Your task to perform on an android device: delete browsing data in the chrome app Image 0: 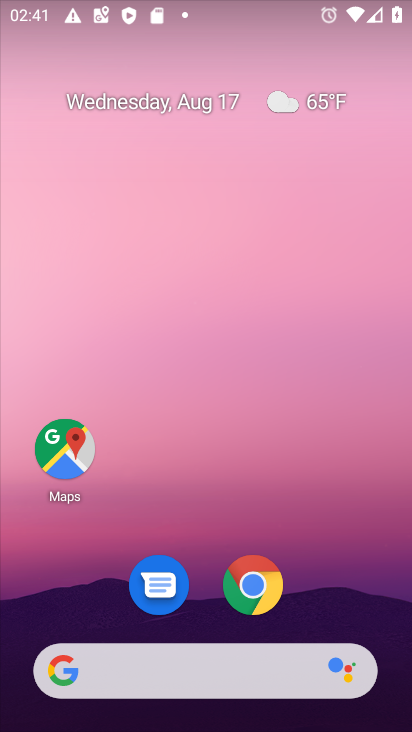
Step 0: drag from (334, 584) to (322, 0)
Your task to perform on an android device: delete browsing data in the chrome app Image 1: 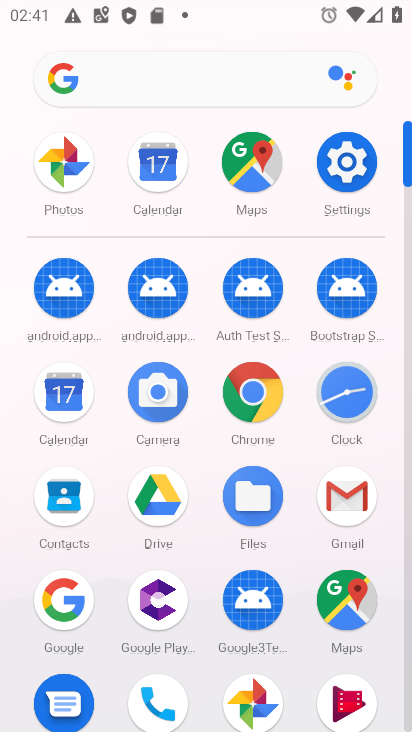
Step 1: click (257, 387)
Your task to perform on an android device: delete browsing data in the chrome app Image 2: 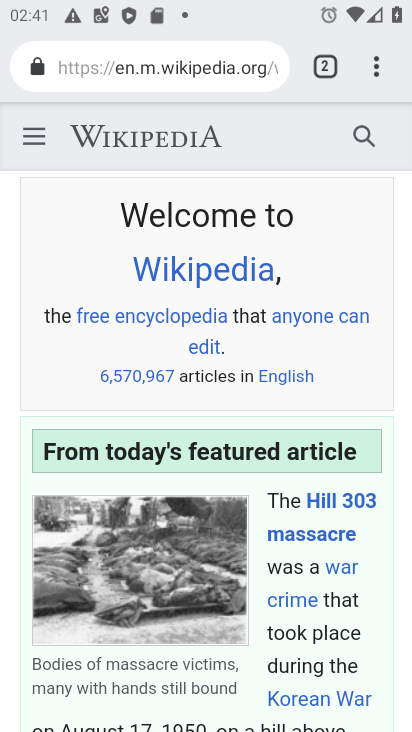
Step 2: click (374, 60)
Your task to perform on an android device: delete browsing data in the chrome app Image 3: 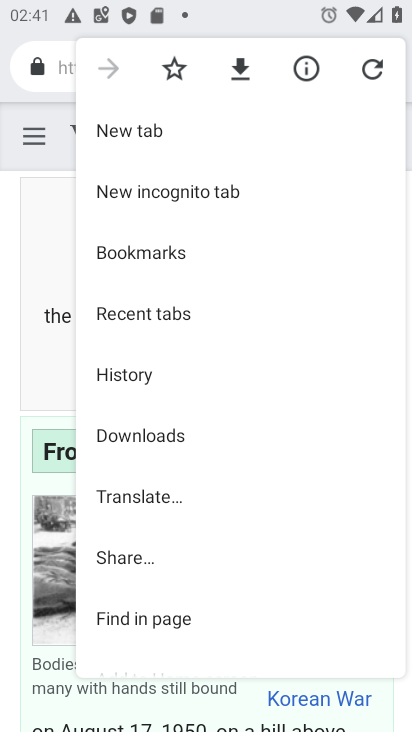
Step 3: click (150, 376)
Your task to perform on an android device: delete browsing data in the chrome app Image 4: 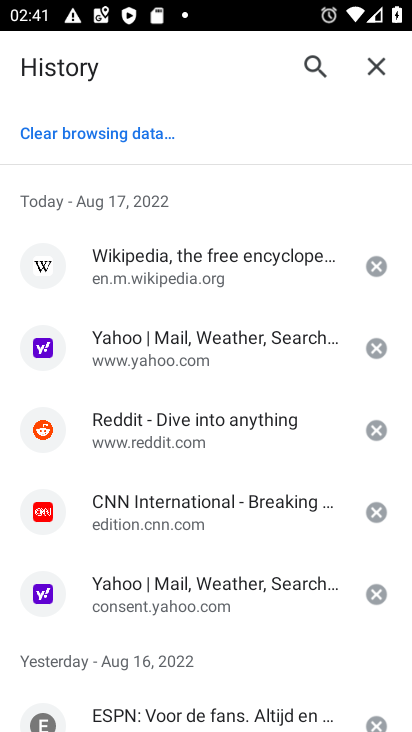
Step 4: click (121, 129)
Your task to perform on an android device: delete browsing data in the chrome app Image 5: 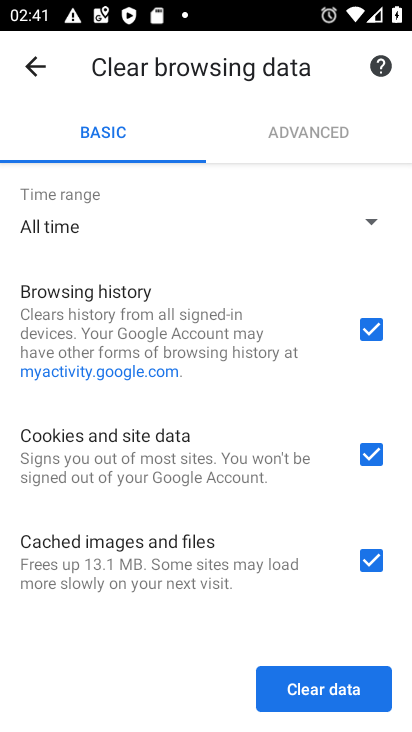
Step 5: click (339, 693)
Your task to perform on an android device: delete browsing data in the chrome app Image 6: 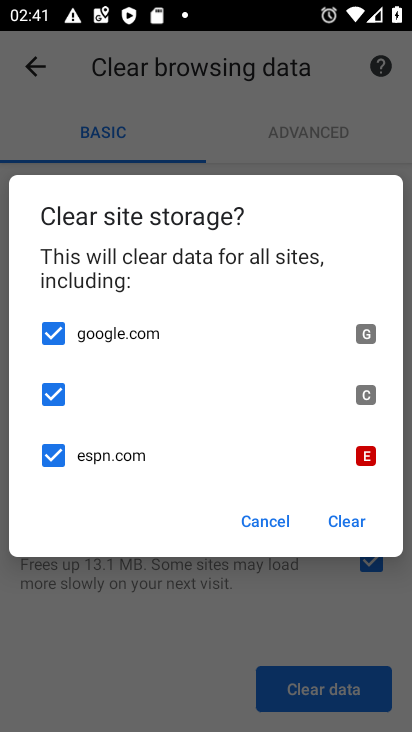
Step 6: click (354, 521)
Your task to perform on an android device: delete browsing data in the chrome app Image 7: 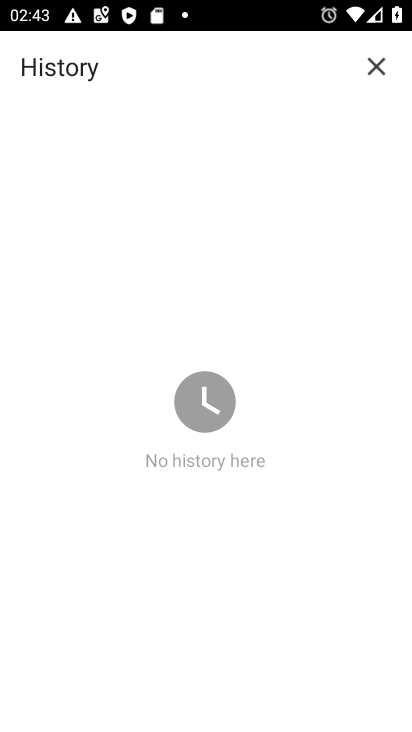
Step 7: task complete